Your task to perform on an android device: Open the web browser Image 0: 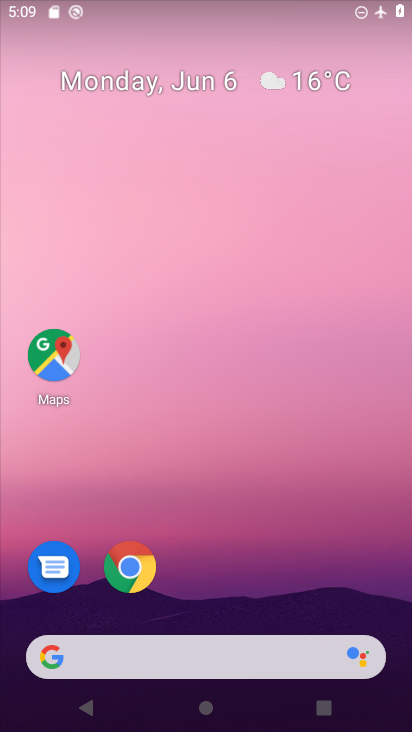
Step 0: drag from (185, 323) to (154, 83)
Your task to perform on an android device: Open the web browser Image 1: 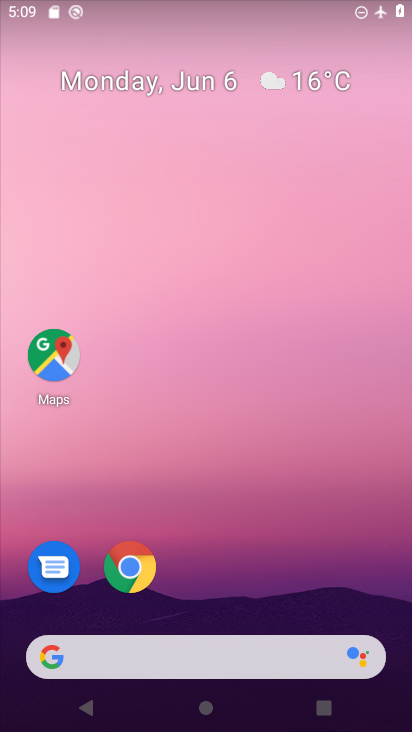
Step 1: drag from (106, 219) to (86, 45)
Your task to perform on an android device: Open the web browser Image 2: 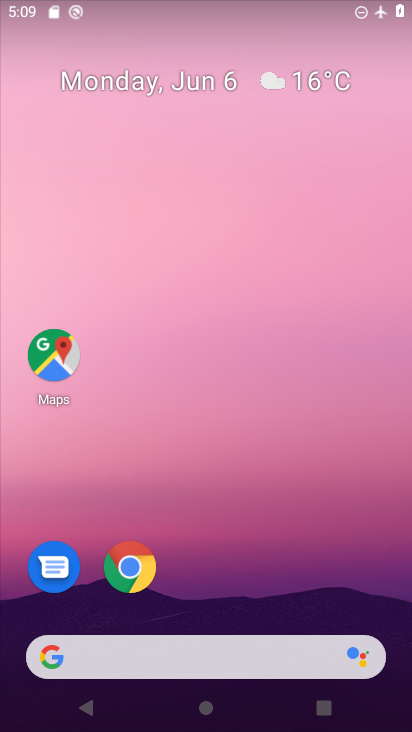
Step 2: drag from (258, 689) to (119, 59)
Your task to perform on an android device: Open the web browser Image 3: 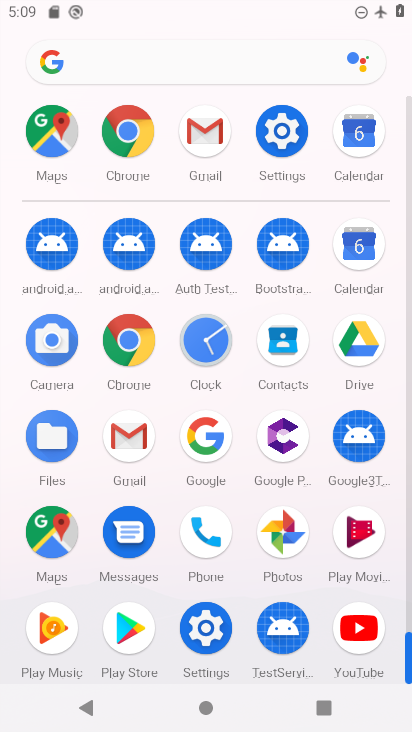
Step 3: click (127, 137)
Your task to perform on an android device: Open the web browser Image 4: 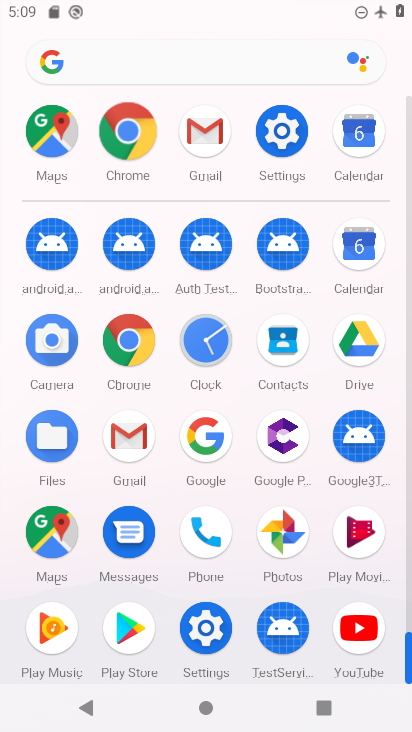
Step 4: click (127, 137)
Your task to perform on an android device: Open the web browser Image 5: 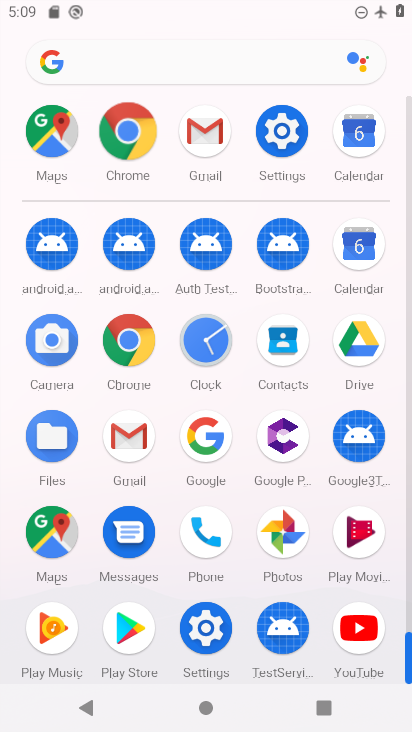
Step 5: click (129, 137)
Your task to perform on an android device: Open the web browser Image 6: 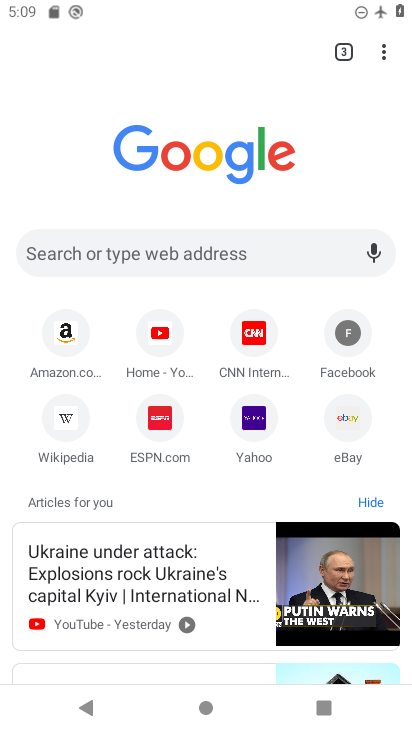
Step 6: click (381, 53)
Your task to perform on an android device: Open the web browser Image 7: 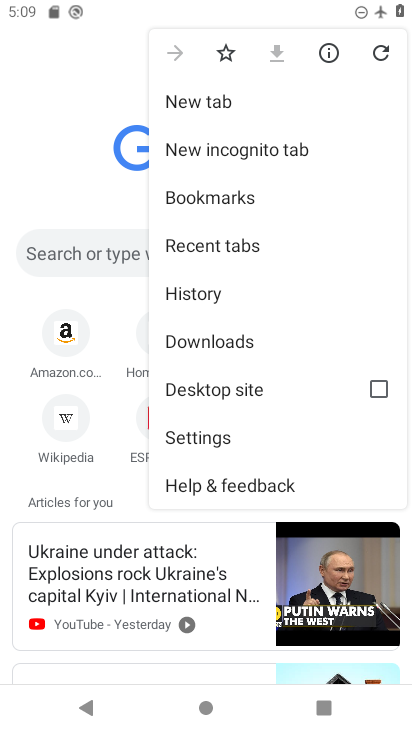
Step 7: click (178, 104)
Your task to perform on an android device: Open the web browser Image 8: 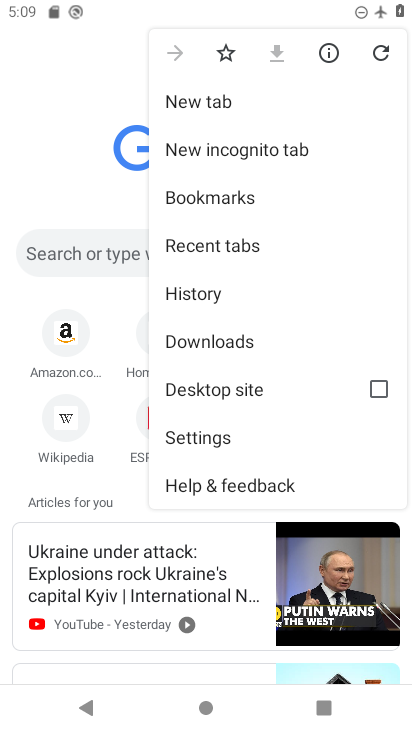
Step 8: click (178, 104)
Your task to perform on an android device: Open the web browser Image 9: 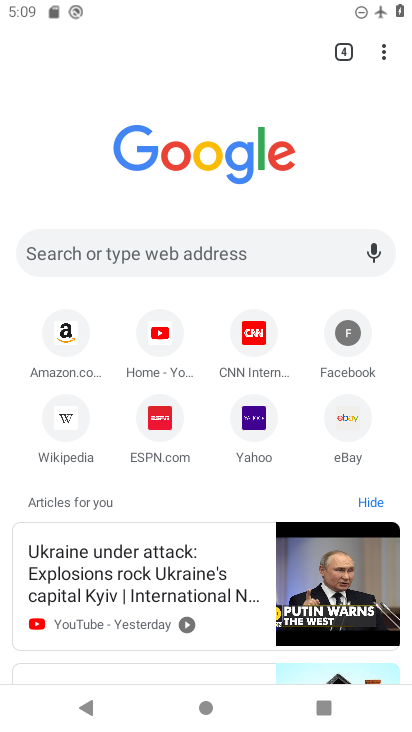
Step 9: task complete